Your task to perform on an android device: Open the calendar app, open the side menu, and click the "Day" option Image 0: 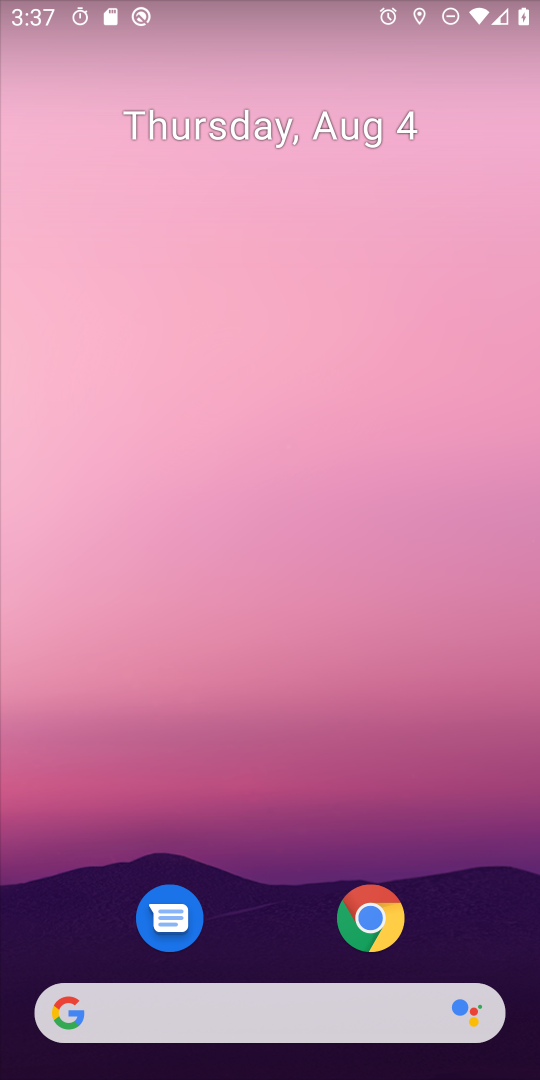
Step 0: drag from (260, 869) to (265, 384)
Your task to perform on an android device: Open the calendar app, open the side menu, and click the "Day" option Image 1: 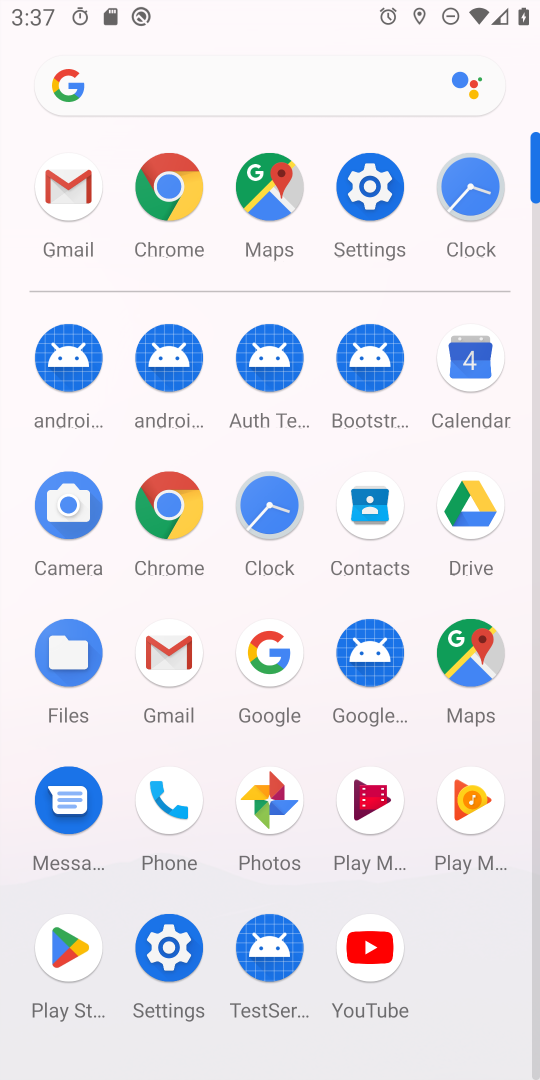
Step 1: click (467, 364)
Your task to perform on an android device: Open the calendar app, open the side menu, and click the "Day" option Image 2: 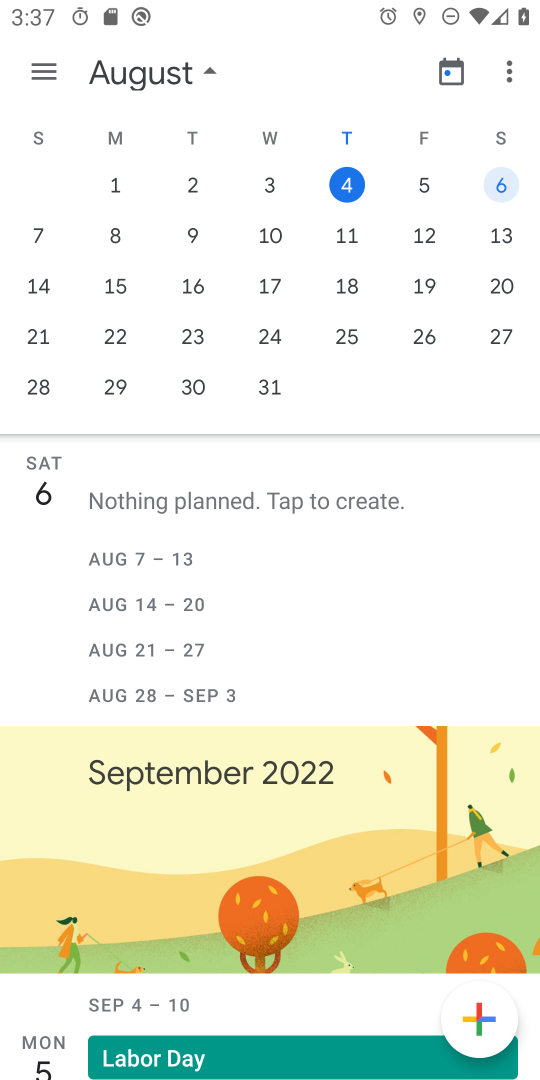
Step 2: click (30, 73)
Your task to perform on an android device: Open the calendar app, open the side menu, and click the "Day" option Image 3: 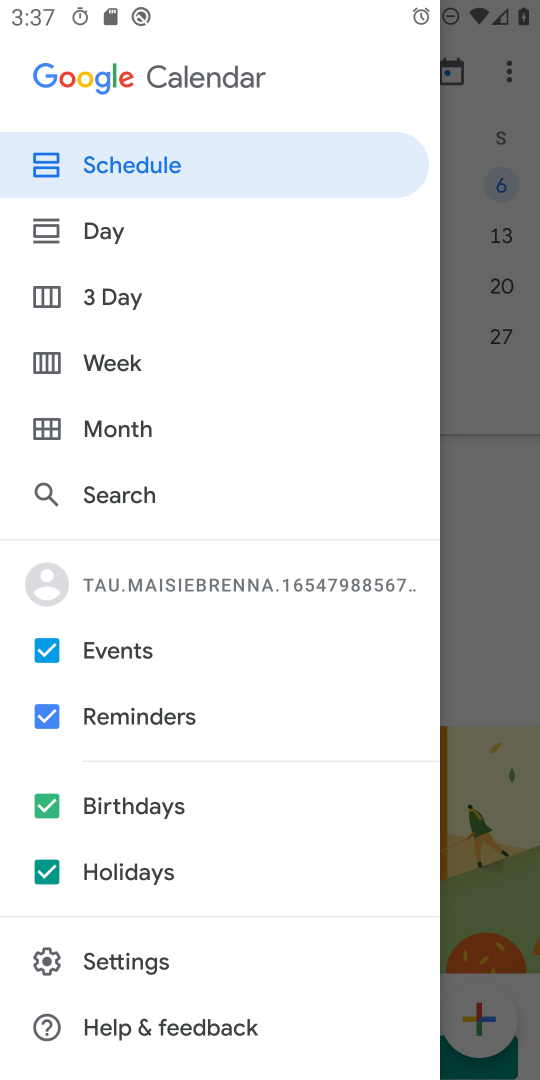
Step 3: click (179, 220)
Your task to perform on an android device: Open the calendar app, open the side menu, and click the "Day" option Image 4: 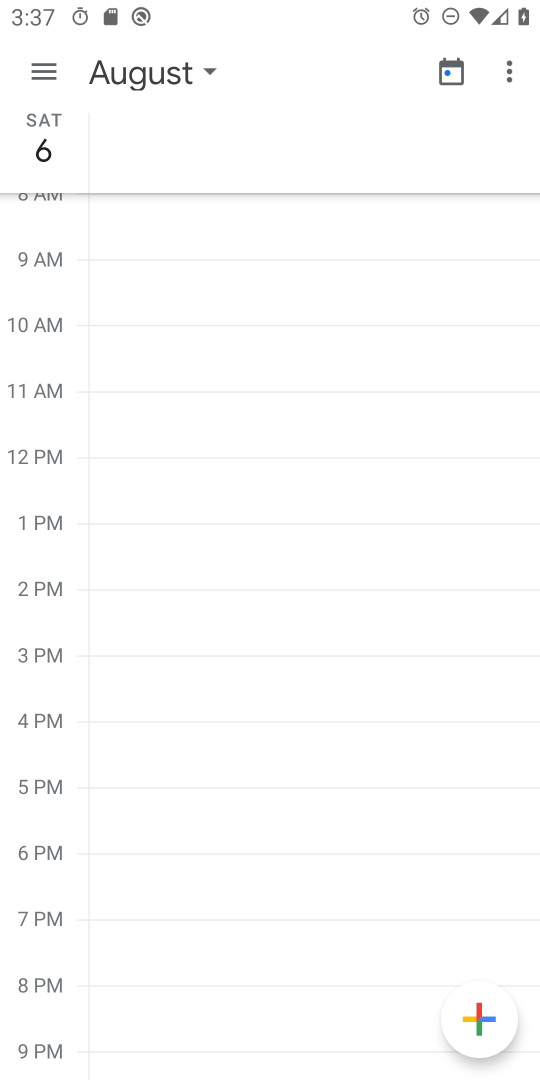
Step 4: task complete